Your task to perform on an android device: open the mobile data screen to see how much data has been used Image 0: 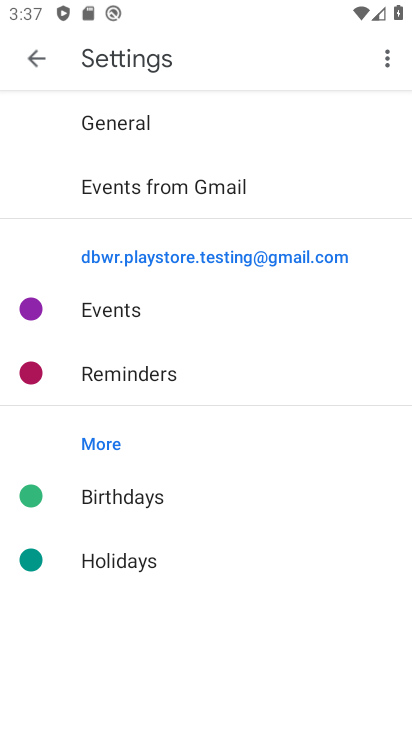
Step 0: drag from (222, 19) to (185, 422)
Your task to perform on an android device: open the mobile data screen to see how much data has been used Image 1: 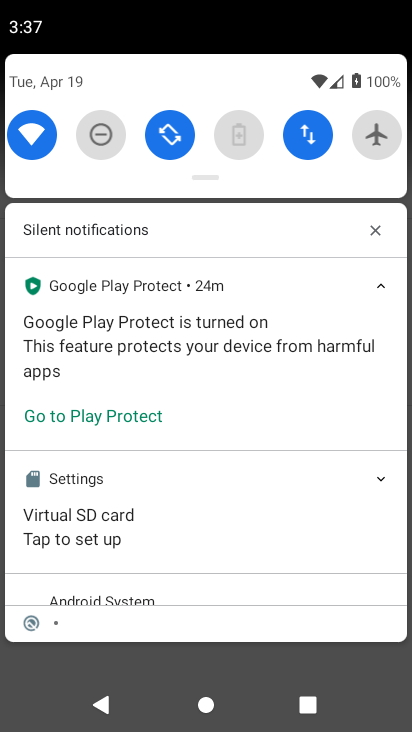
Step 1: drag from (211, 106) to (193, 409)
Your task to perform on an android device: open the mobile data screen to see how much data has been used Image 2: 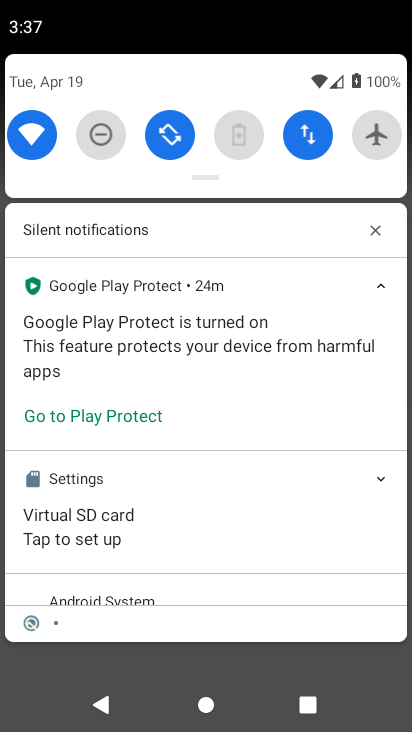
Step 2: drag from (265, 85) to (300, 617)
Your task to perform on an android device: open the mobile data screen to see how much data has been used Image 3: 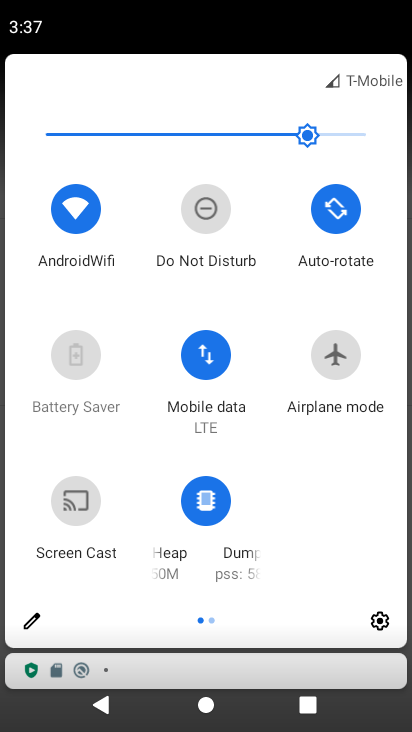
Step 3: click (375, 624)
Your task to perform on an android device: open the mobile data screen to see how much data has been used Image 4: 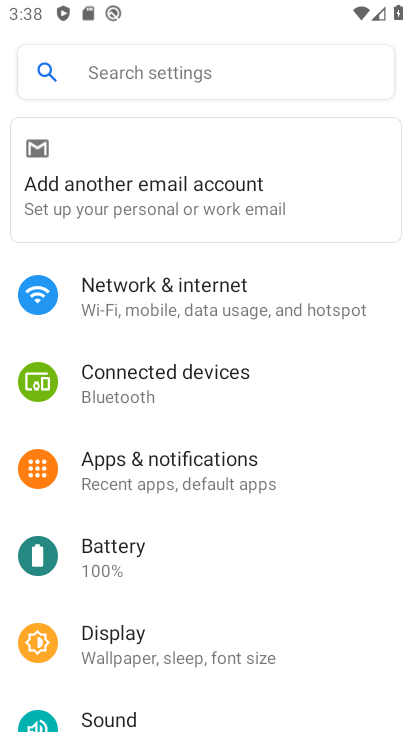
Step 4: click (142, 309)
Your task to perform on an android device: open the mobile data screen to see how much data has been used Image 5: 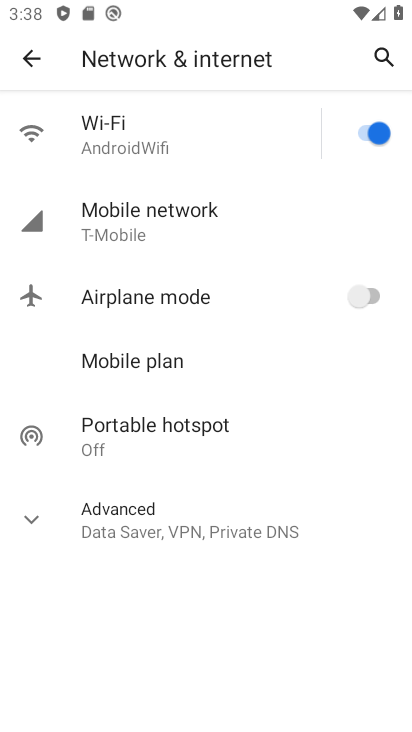
Step 5: click (192, 223)
Your task to perform on an android device: open the mobile data screen to see how much data has been used Image 6: 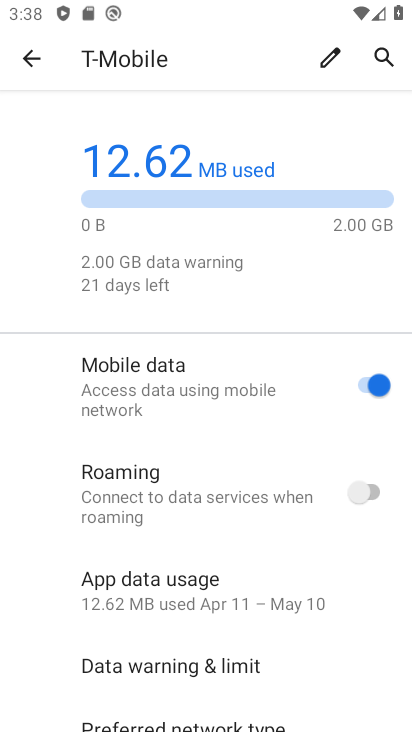
Step 6: task complete